Your task to perform on an android device: search for starred emails in the gmail app Image 0: 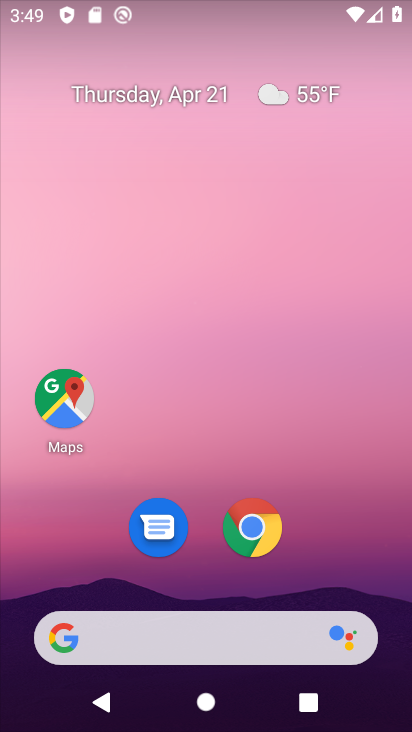
Step 0: drag from (366, 539) to (252, 7)
Your task to perform on an android device: search for starred emails in the gmail app Image 1: 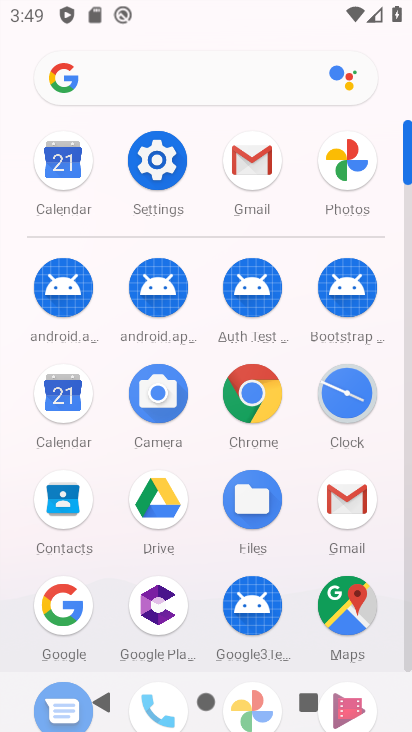
Step 1: click (255, 218)
Your task to perform on an android device: search for starred emails in the gmail app Image 2: 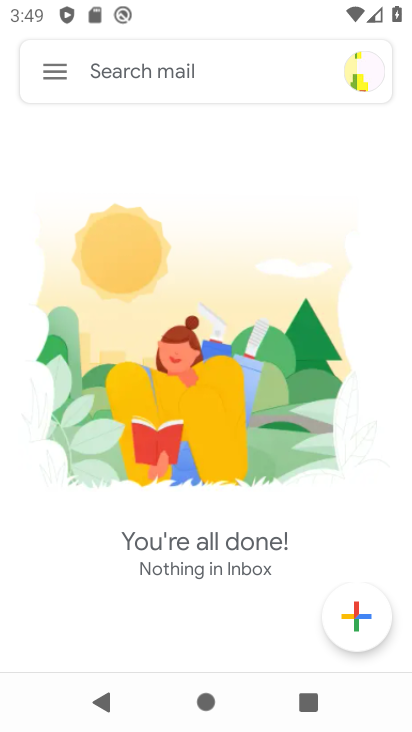
Step 2: click (60, 75)
Your task to perform on an android device: search for starred emails in the gmail app Image 3: 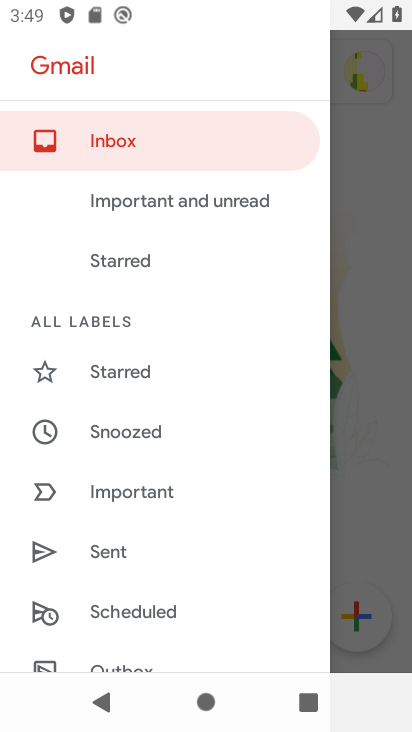
Step 3: click (136, 377)
Your task to perform on an android device: search for starred emails in the gmail app Image 4: 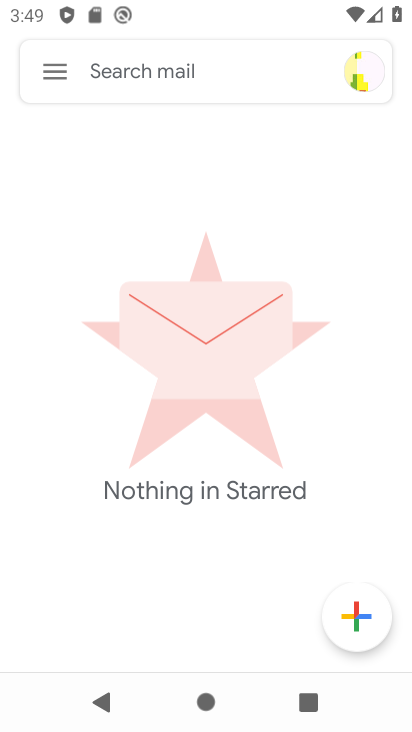
Step 4: task complete